Your task to perform on an android device: open app "Contacts" Image 0: 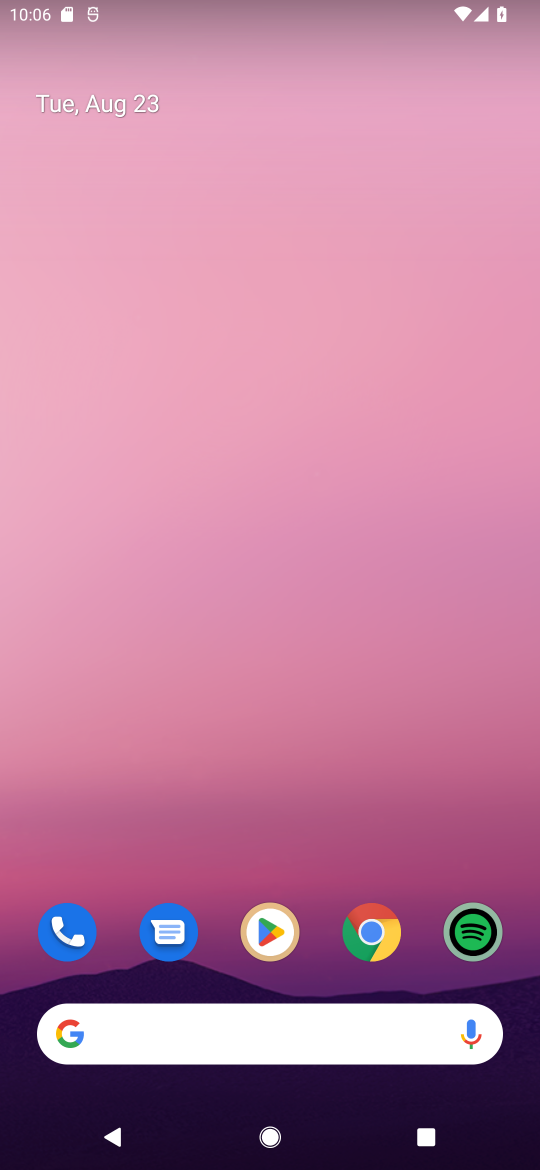
Step 0: drag from (283, 903) to (377, 38)
Your task to perform on an android device: open app "Contacts" Image 1: 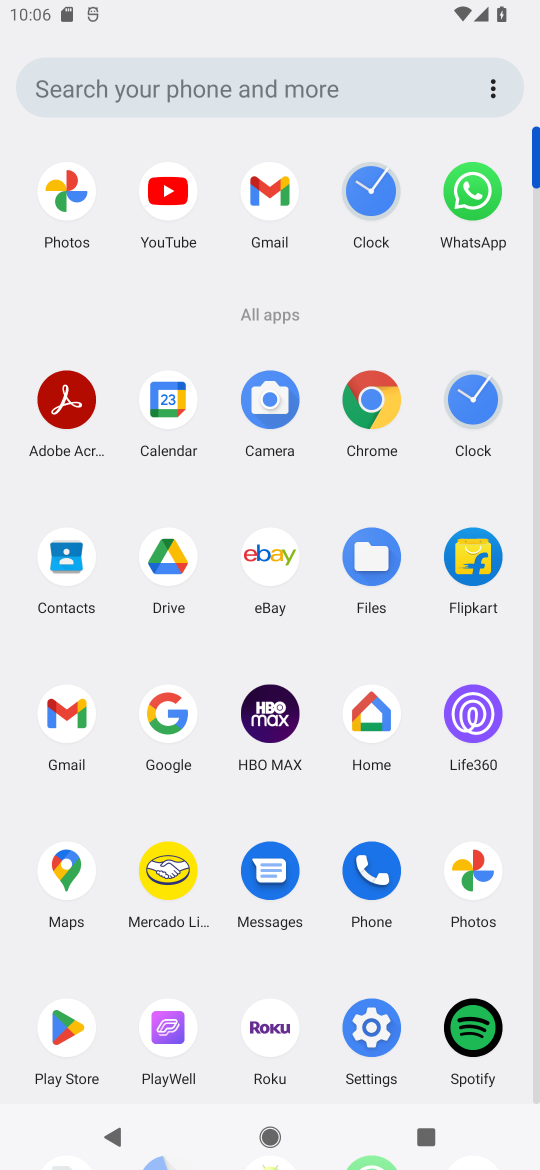
Step 1: click (70, 540)
Your task to perform on an android device: open app "Contacts" Image 2: 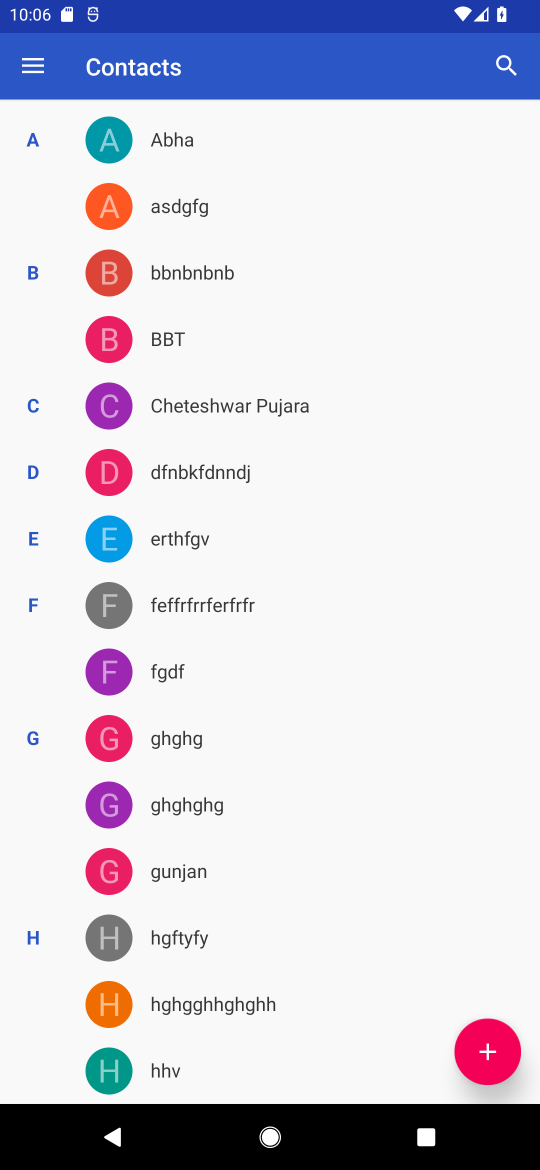
Step 2: task complete